Your task to perform on an android device: add a contact in the contacts app Image 0: 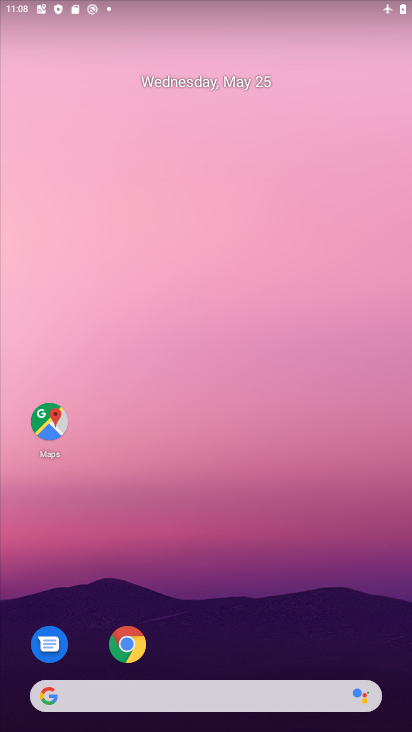
Step 0: drag from (276, 625) to (271, 139)
Your task to perform on an android device: add a contact in the contacts app Image 1: 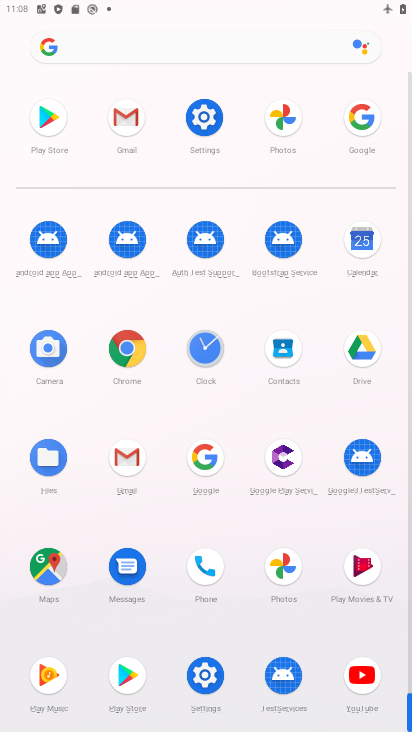
Step 1: click (284, 339)
Your task to perform on an android device: add a contact in the contacts app Image 2: 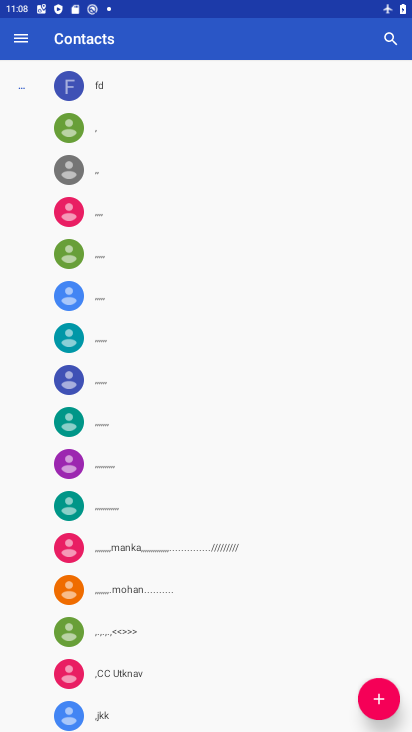
Step 2: click (386, 693)
Your task to perform on an android device: add a contact in the contacts app Image 3: 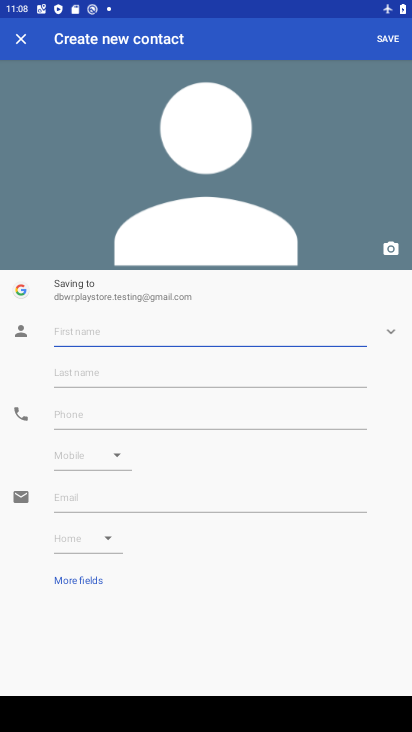
Step 3: type "nhwehd"
Your task to perform on an android device: add a contact in the contacts app Image 4: 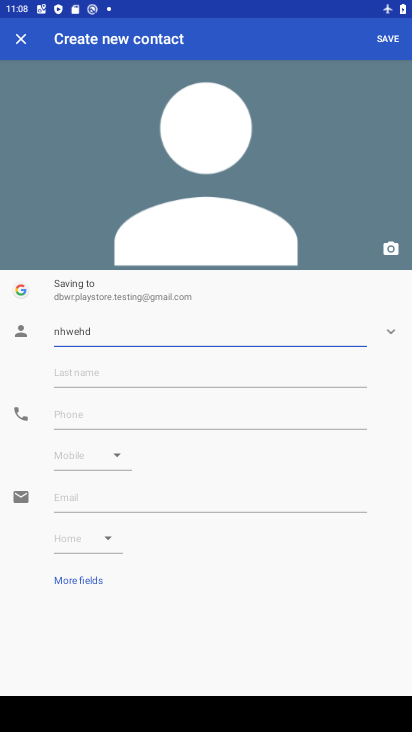
Step 4: click (379, 40)
Your task to perform on an android device: add a contact in the contacts app Image 5: 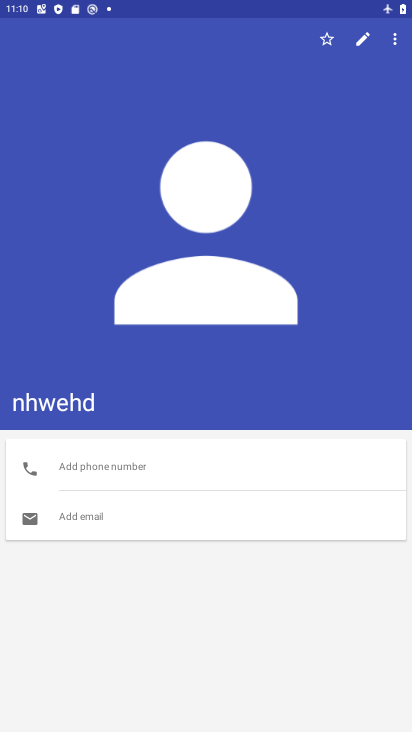
Step 5: task complete